Your task to perform on an android device: toggle wifi Image 0: 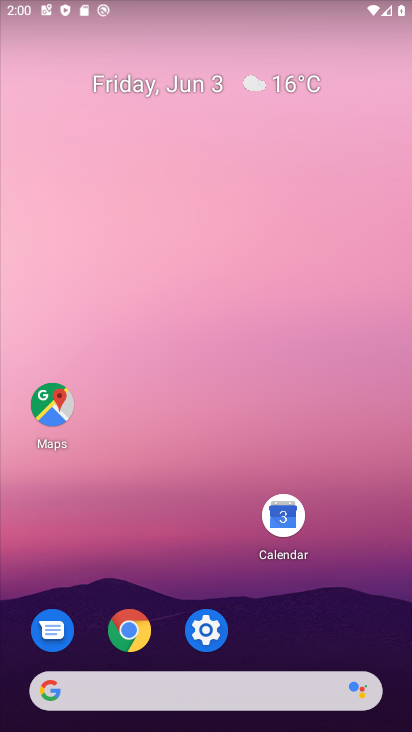
Step 0: drag from (314, 708) to (303, 213)
Your task to perform on an android device: toggle wifi Image 1: 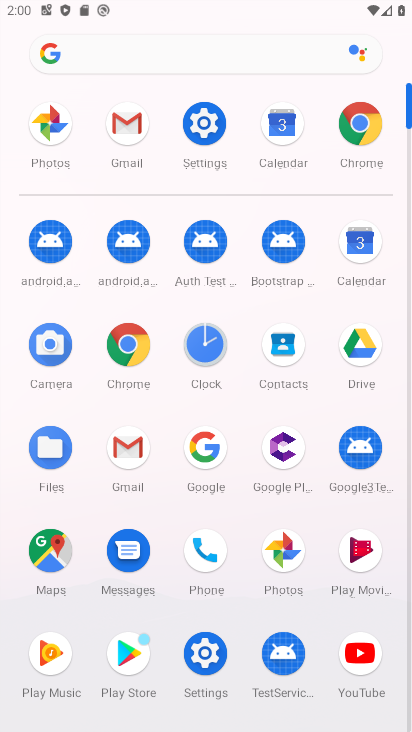
Step 1: click (199, 128)
Your task to perform on an android device: toggle wifi Image 2: 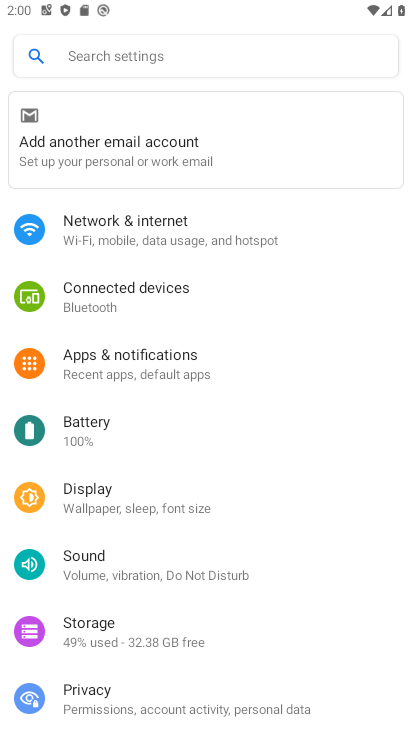
Step 2: click (113, 222)
Your task to perform on an android device: toggle wifi Image 3: 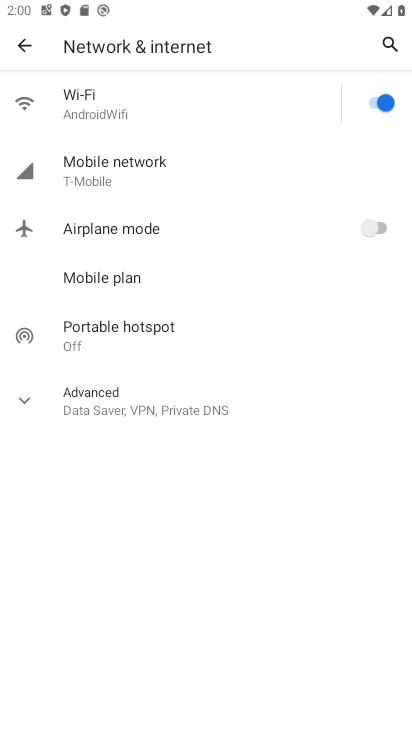
Step 3: click (148, 116)
Your task to perform on an android device: toggle wifi Image 4: 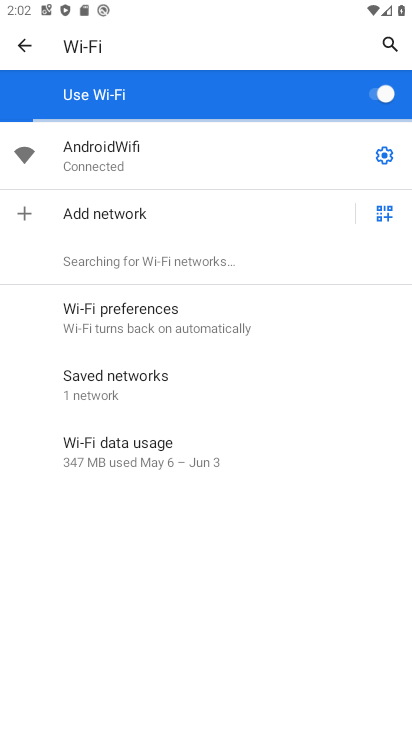
Step 4: task complete